Your task to perform on an android device: What is the recent news? Image 0: 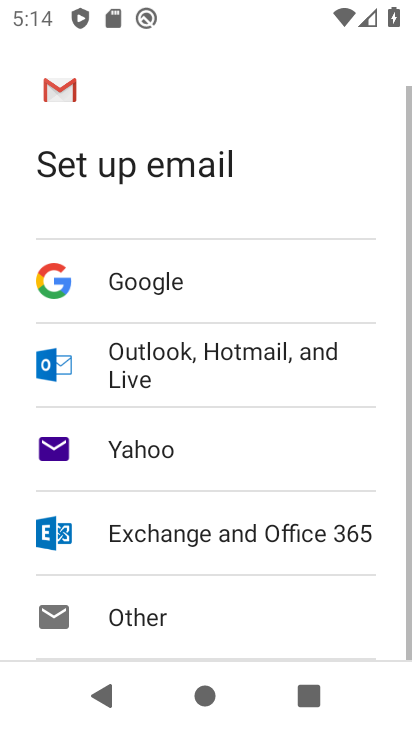
Step 0: press home button
Your task to perform on an android device: What is the recent news? Image 1: 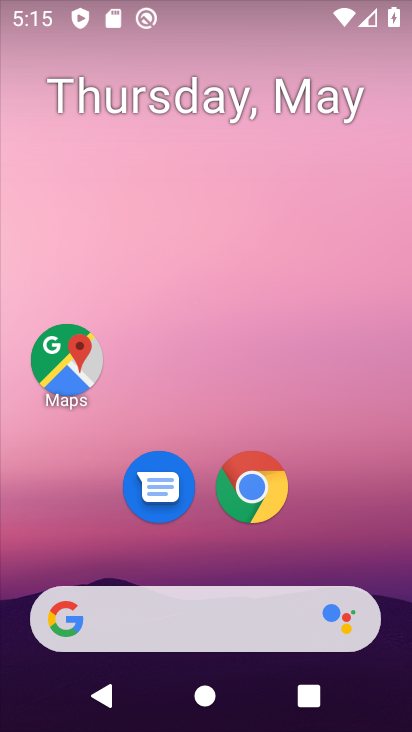
Step 1: click (208, 626)
Your task to perform on an android device: What is the recent news? Image 2: 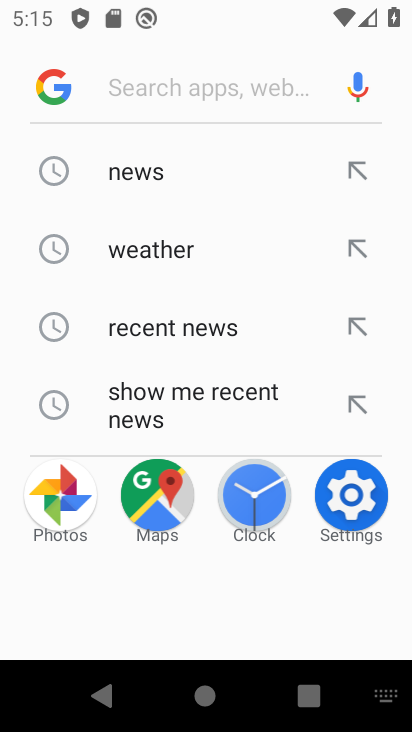
Step 2: click (103, 321)
Your task to perform on an android device: What is the recent news? Image 3: 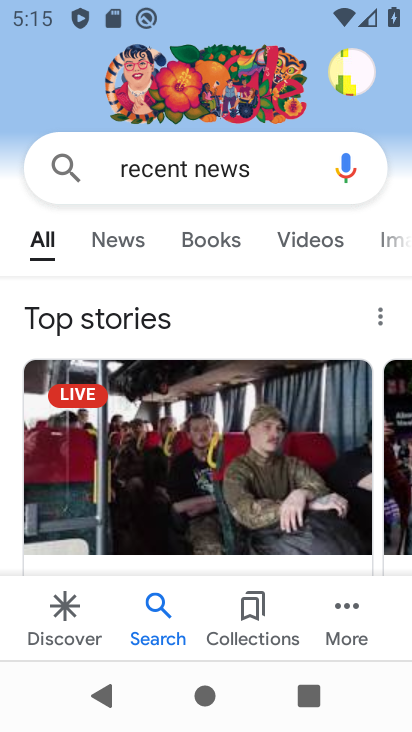
Step 3: click (121, 243)
Your task to perform on an android device: What is the recent news? Image 4: 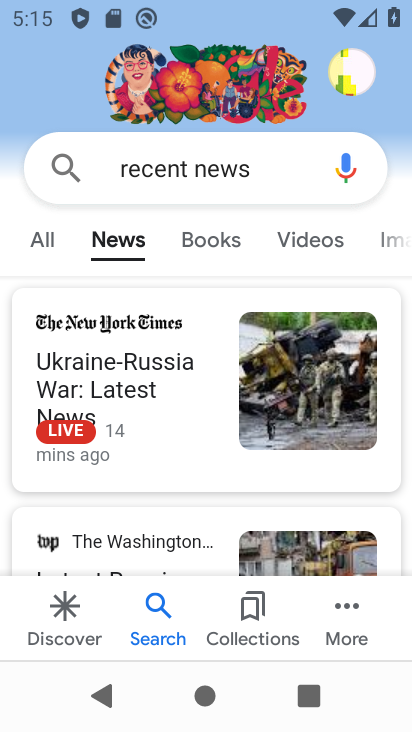
Step 4: task complete